Your task to perform on an android device: add a contact in the contacts app Image 0: 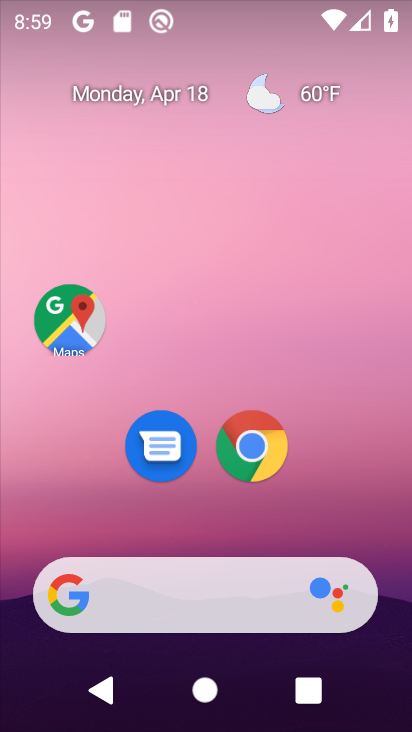
Step 0: drag from (376, 504) to (358, 126)
Your task to perform on an android device: add a contact in the contacts app Image 1: 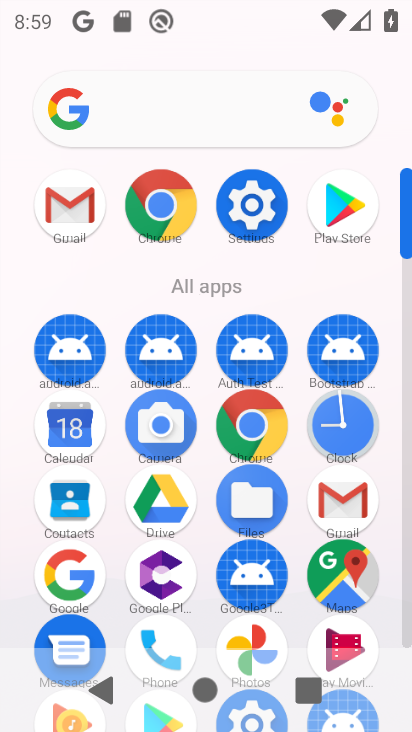
Step 1: drag from (392, 525) to (387, 304)
Your task to perform on an android device: add a contact in the contacts app Image 2: 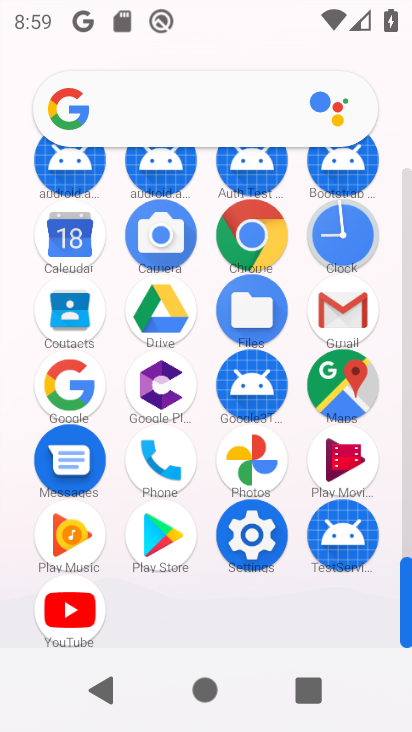
Step 2: click (59, 328)
Your task to perform on an android device: add a contact in the contacts app Image 3: 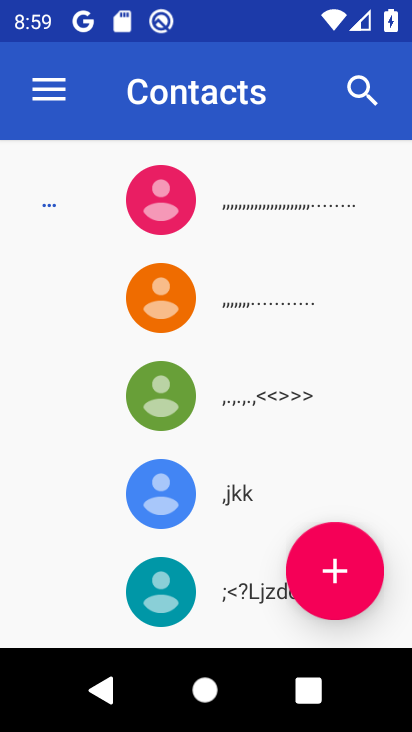
Step 3: click (323, 590)
Your task to perform on an android device: add a contact in the contacts app Image 4: 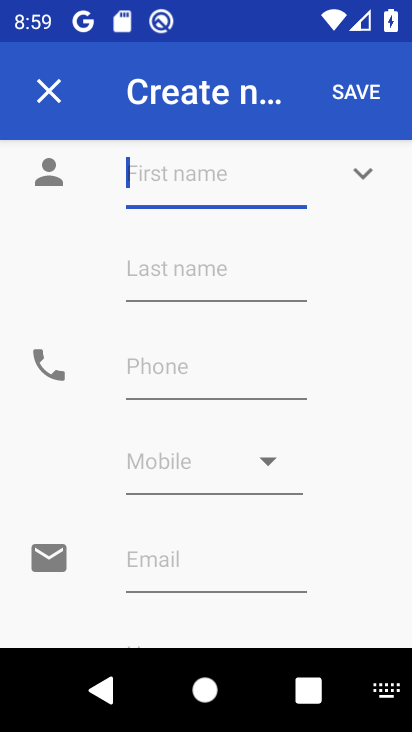
Step 4: click (240, 188)
Your task to perform on an android device: add a contact in the contacts app Image 5: 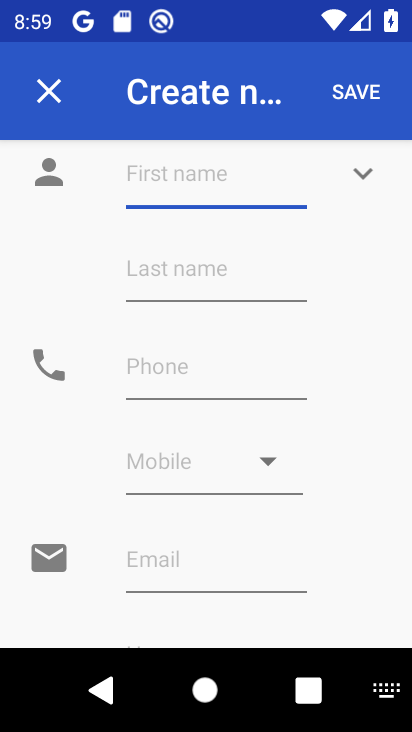
Step 5: type "ssss"
Your task to perform on an android device: add a contact in the contacts app Image 6: 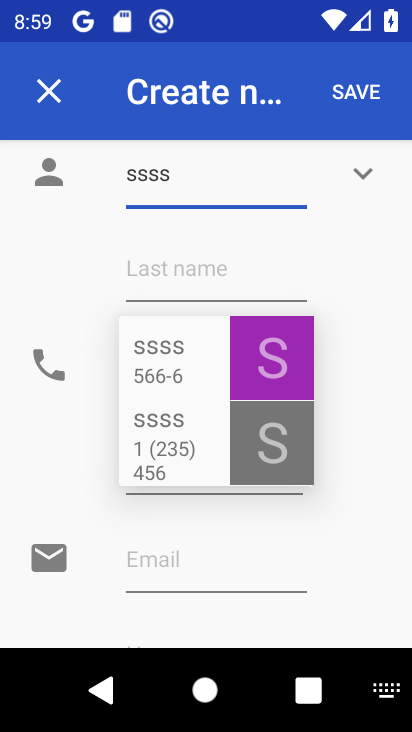
Step 6: click (365, 324)
Your task to perform on an android device: add a contact in the contacts app Image 7: 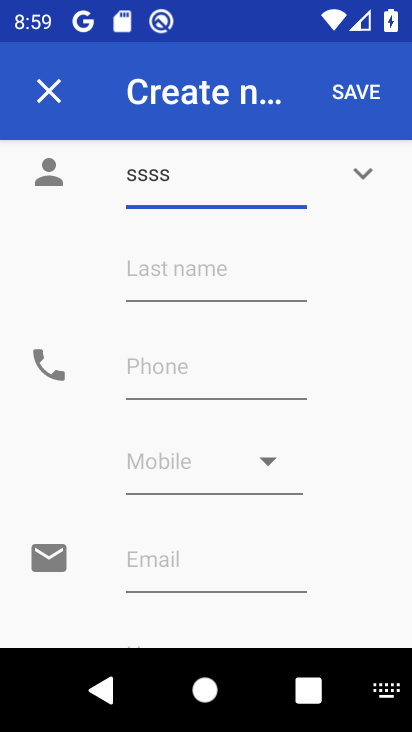
Step 7: click (266, 383)
Your task to perform on an android device: add a contact in the contacts app Image 8: 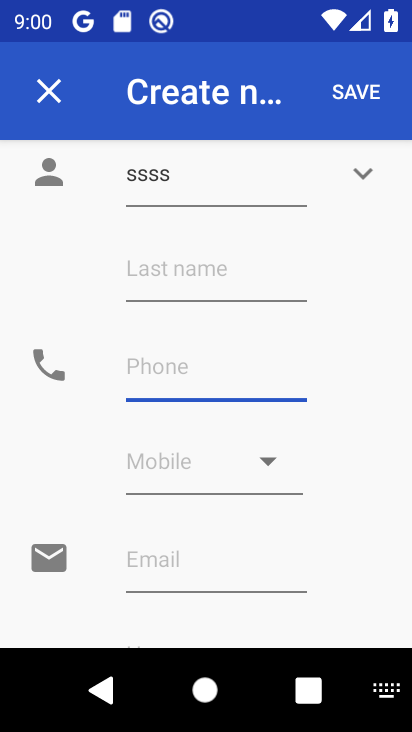
Step 8: type "1234567890"
Your task to perform on an android device: add a contact in the contacts app Image 9: 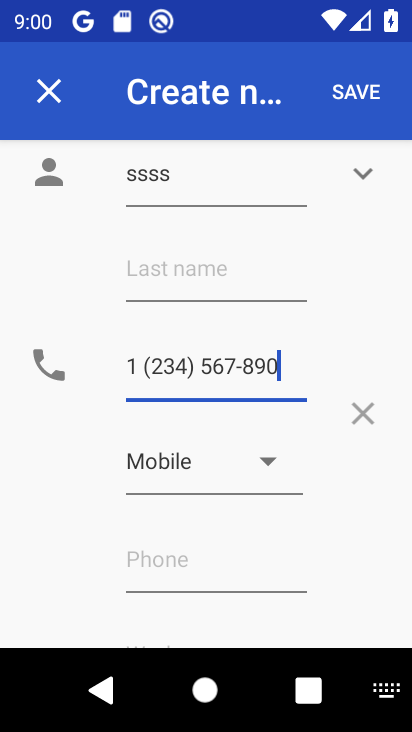
Step 9: click (350, 100)
Your task to perform on an android device: add a contact in the contacts app Image 10: 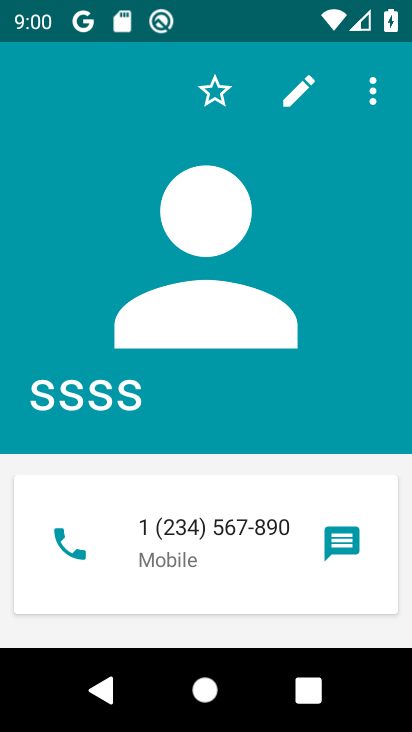
Step 10: task complete